Your task to perform on an android device: set default search engine in the chrome app Image 0: 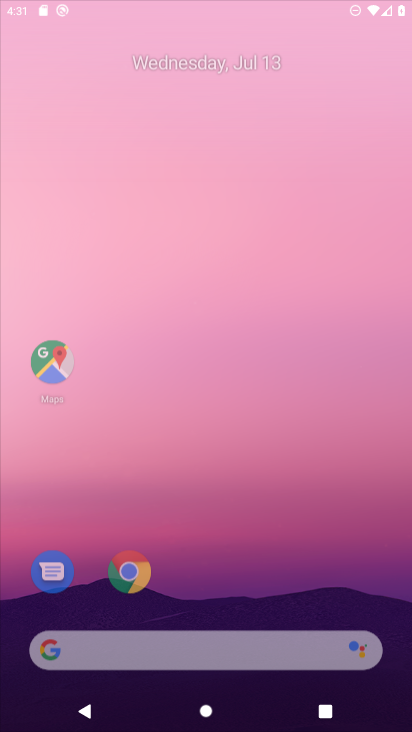
Step 0: press back button
Your task to perform on an android device: set default search engine in the chrome app Image 1: 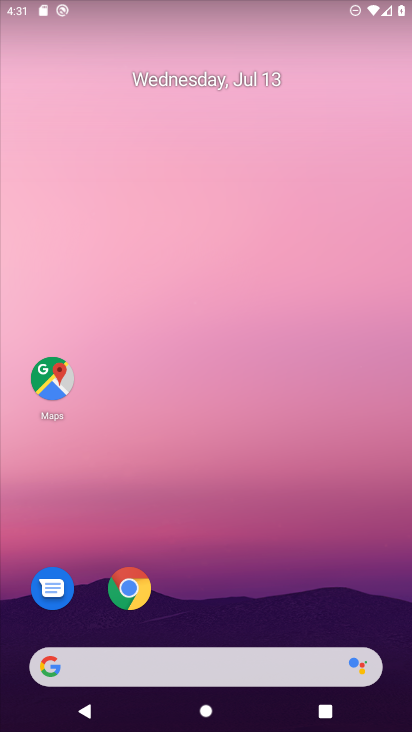
Step 1: drag from (255, 678) to (177, 237)
Your task to perform on an android device: set default search engine in the chrome app Image 2: 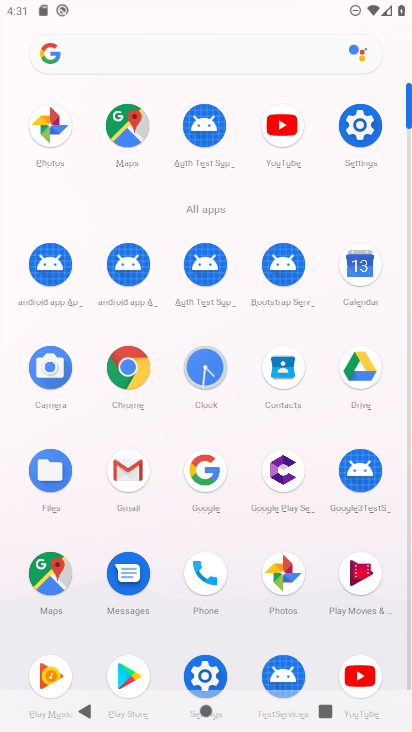
Step 2: click (127, 371)
Your task to perform on an android device: set default search engine in the chrome app Image 3: 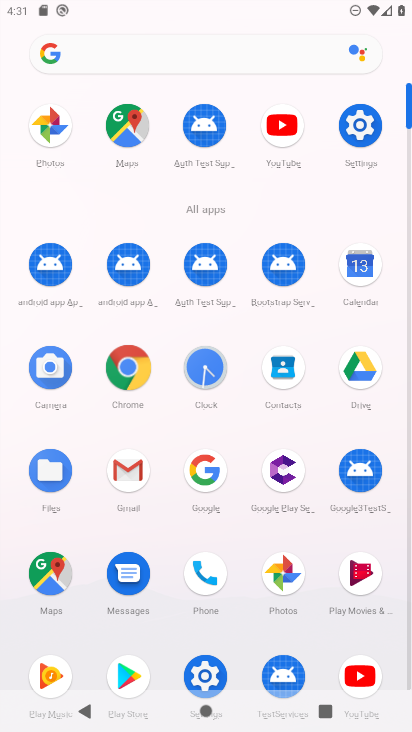
Step 3: click (127, 371)
Your task to perform on an android device: set default search engine in the chrome app Image 4: 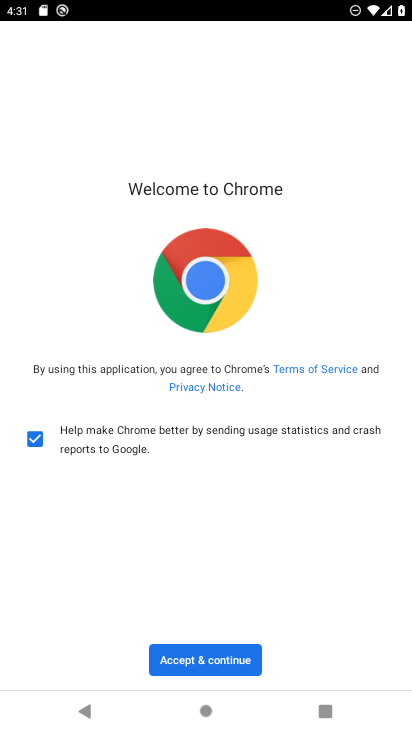
Step 4: click (212, 647)
Your task to perform on an android device: set default search engine in the chrome app Image 5: 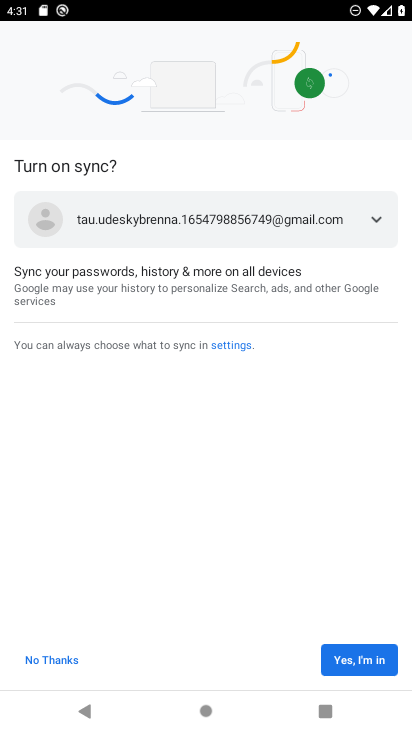
Step 5: click (212, 647)
Your task to perform on an android device: set default search engine in the chrome app Image 6: 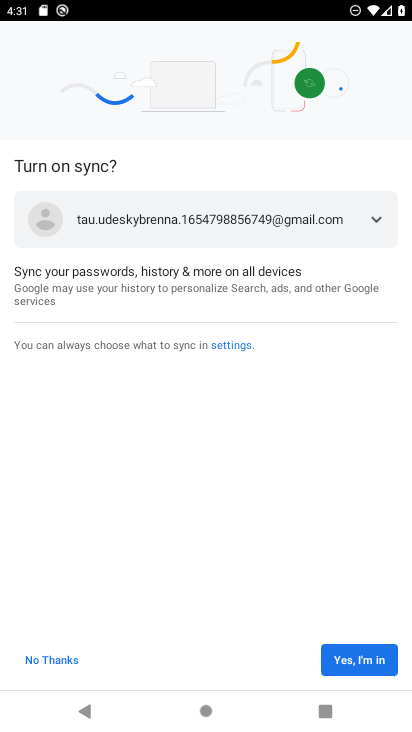
Step 6: click (212, 647)
Your task to perform on an android device: set default search engine in the chrome app Image 7: 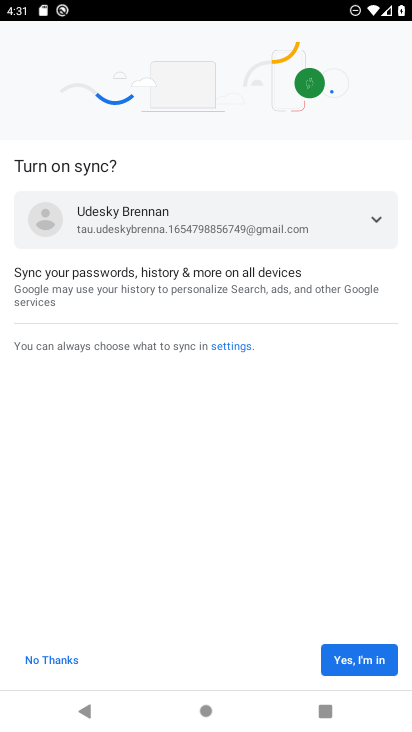
Step 7: click (212, 647)
Your task to perform on an android device: set default search engine in the chrome app Image 8: 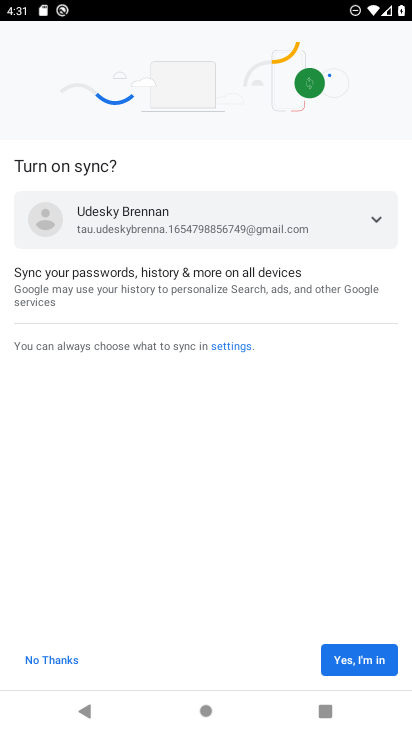
Step 8: click (355, 654)
Your task to perform on an android device: set default search engine in the chrome app Image 9: 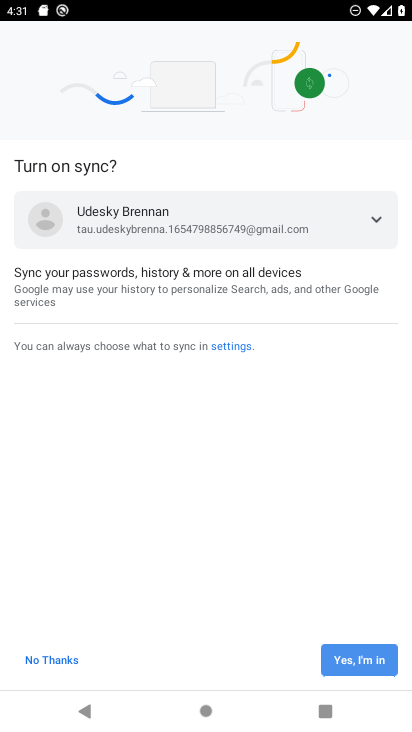
Step 9: click (354, 654)
Your task to perform on an android device: set default search engine in the chrome app Image 10: 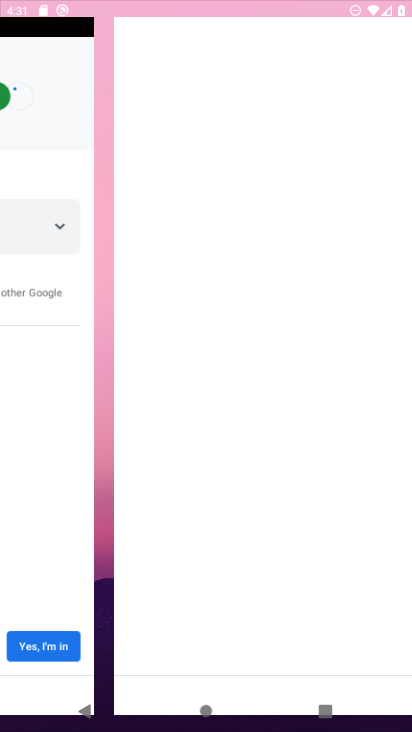
Step 10: click (354, 654)
Your task to perform on an android device: set default search engine in the chrome app Image 11: 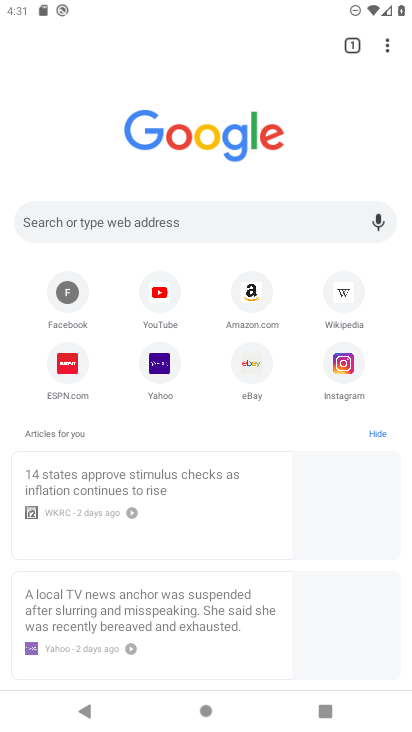
Step 11: drag from (386, 41) to (218, 383)
Your task to perform on an android device: set default search engine in the chrome app Image 12: 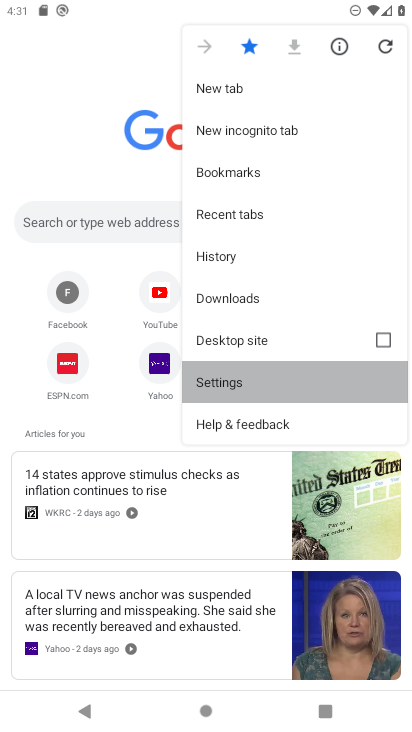
Step 12: click (218, 381)
Your task to perform on an android device: set default search engine in the chrome app Image 13: 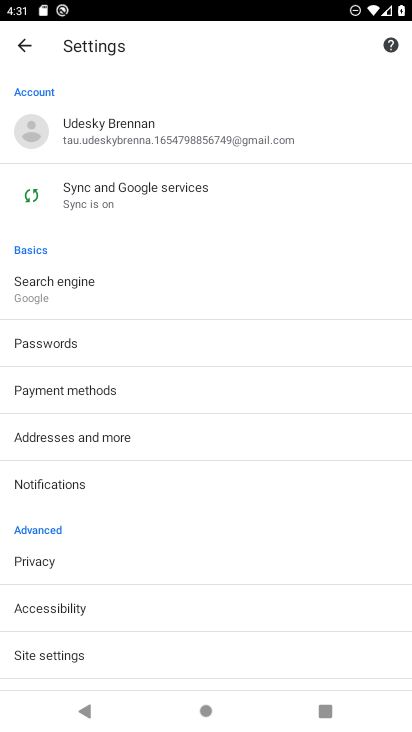
Step 13: click (48, 282)
Your task to perform on an android device: set default search engine in the chrome app Image 14: 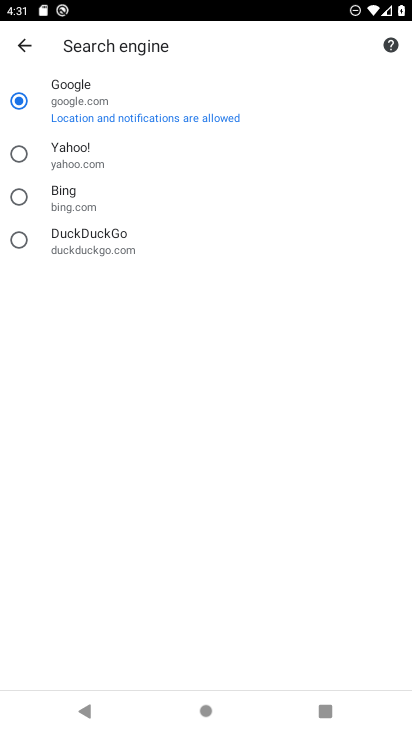
Step 14: click (27, 158)
Your task to perform on an android device: set default search engine in the chrome app Image 15: 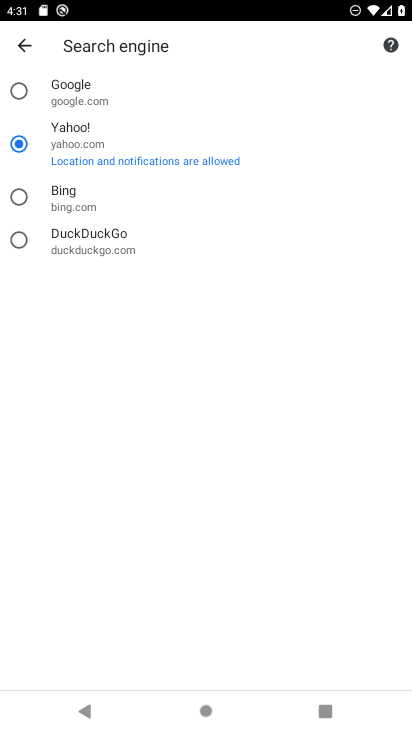
Step 15: task complete